Your task to perform on an android device: What's the weather going to be tomorrow? Image 0: 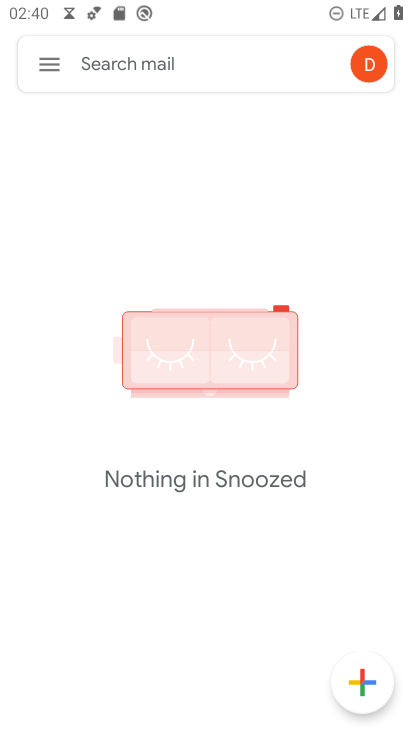
Step 0: press home button
Your task to perform on an android device: What's the weather going to be tomorrow? Image 1: 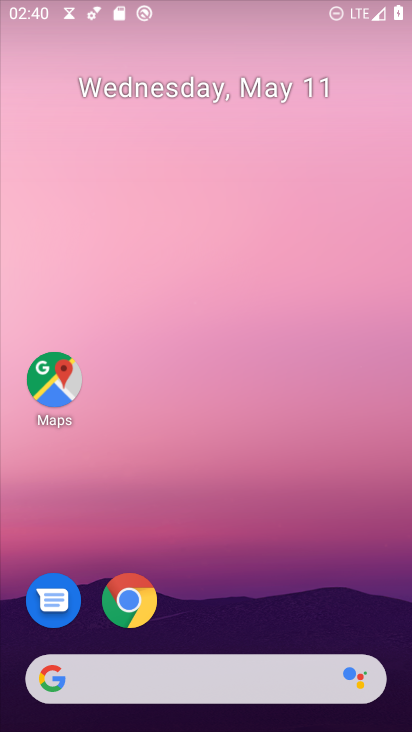
Step 1: drag from (270, 593) to (279, 288)
Your task to perform on an android device: What's the weather going to be tomorrow? Image 2: 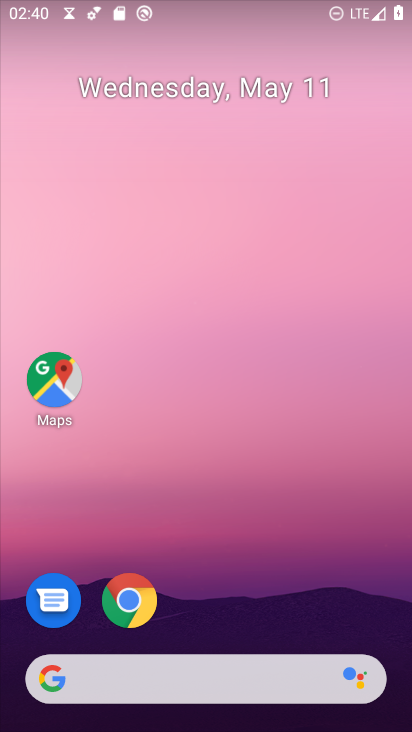
Step 2: drag from (240, 589) to (269, 222)
Your task to perform on an android device: What's the weather going to be tomorrow? Image 3: 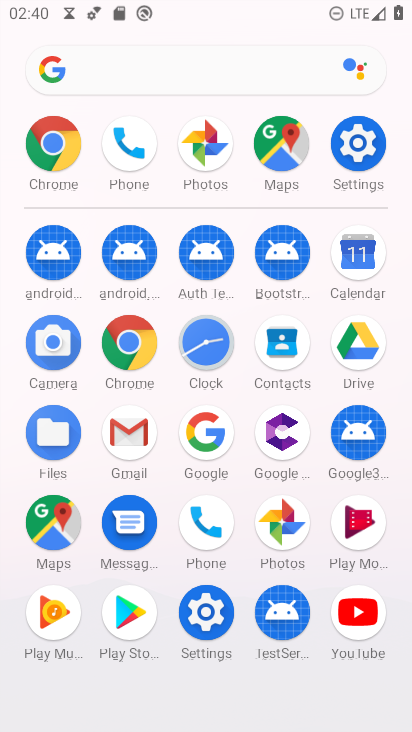
Step 3: click (64, 140)
Your task to perform on an android device: What's the weather going to be tomorrow? Image 4: 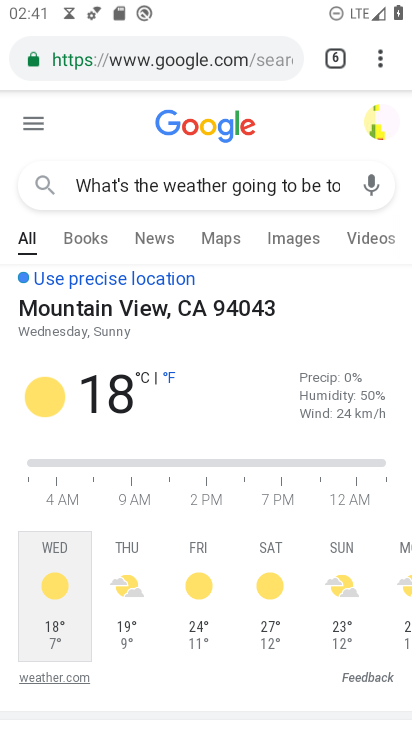
Step 4: task complete